Your task to perform on an android device: Go to settings Image 0: 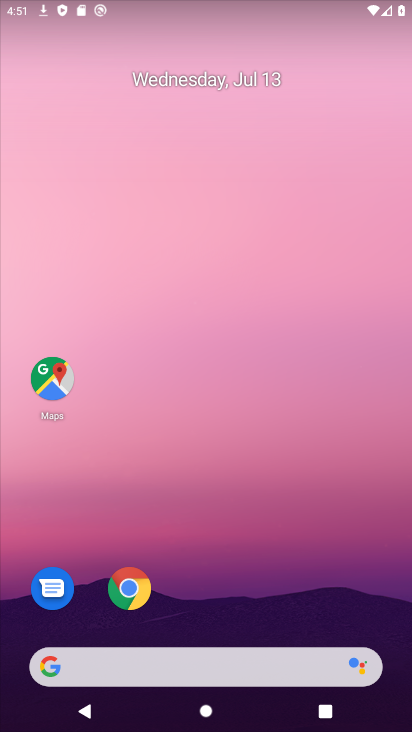
Step 0: drag from (255, 614) to (214, 110)
Your task to perform on an android device: Go to settings Image 1: 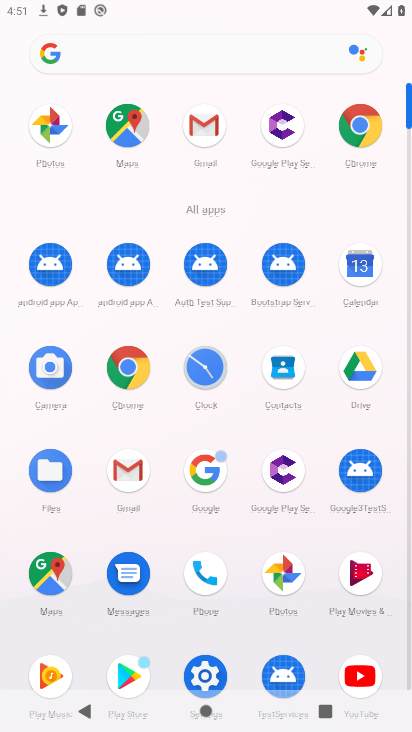
Step 1: click (212, 664)
Your task to perform on an android device: Go to settings Image 2: 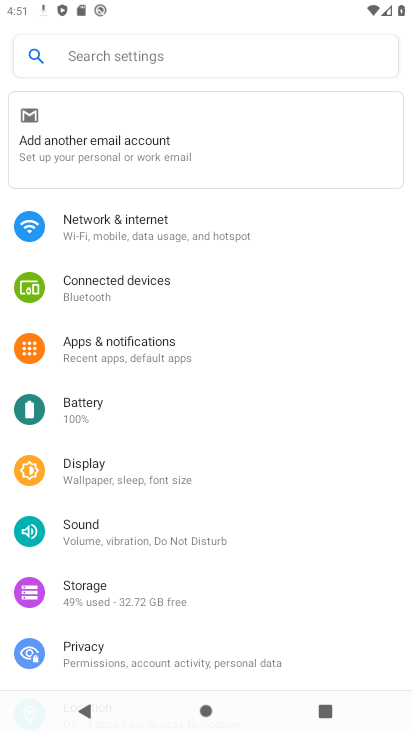
Step 2: task complete